Your task to perform on an android device: When is my next meeting? Image 0: 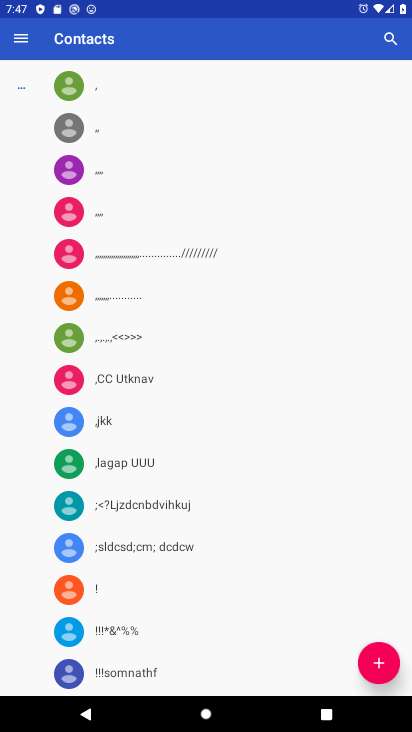
Step 0: press home button
Your task to perform on an android device: When is my next meeting? Image 1: 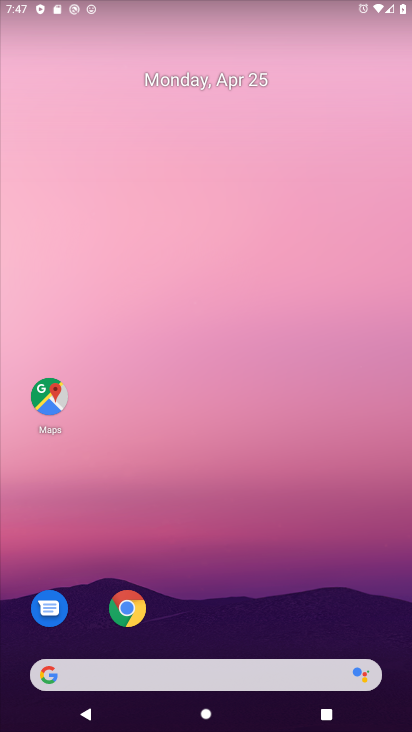
Step 1: drag from (255, 614) to (237, 114)
Your task to perform on an android device: When is my next meeting? Image 2: 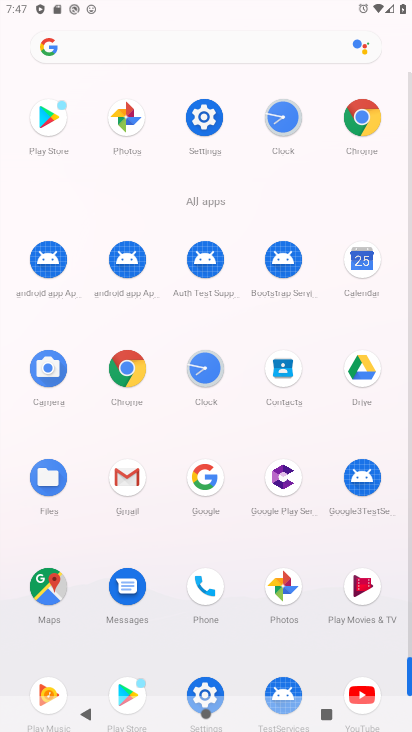
Step 2: click (359, 277)
Your task to perform on an android device: When is my next meeting? Image 3: 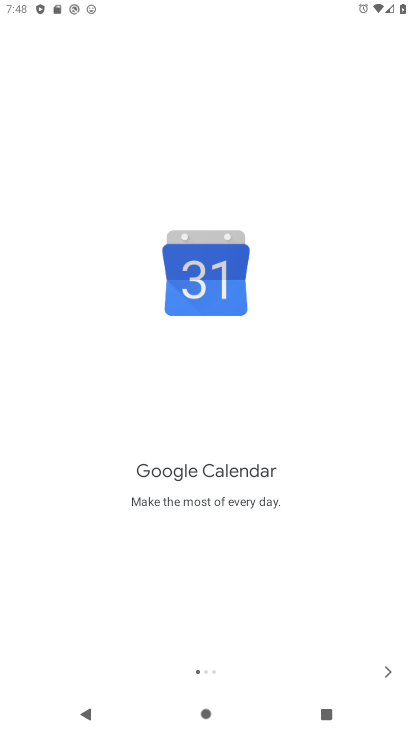
Step 3: click (385, 675)
Your task to perform on an android device: When is my next meeting? Image 4: 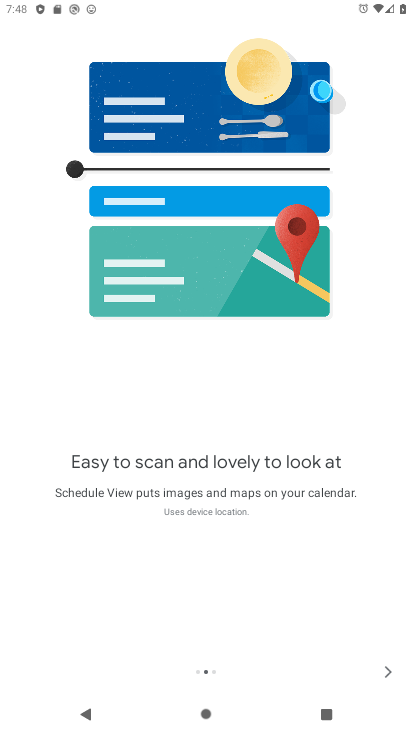
Step 4: click (385, 675)
Your task to perform on an android device: When is my next meeting? Image 5: 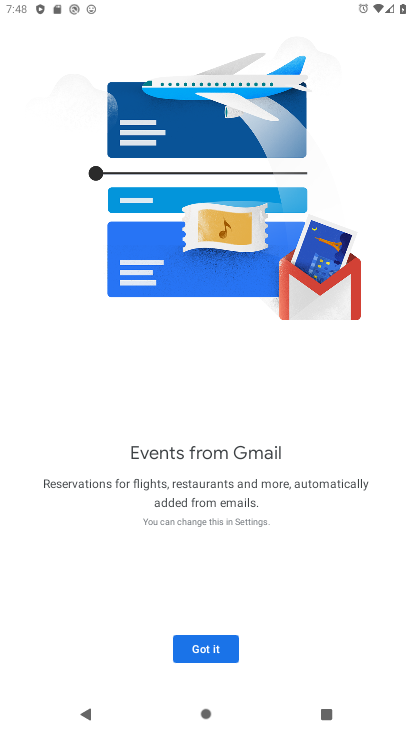
Step 5: click (218, 645)
Your task to perform on an android device: When is my next meeting? Image 6: 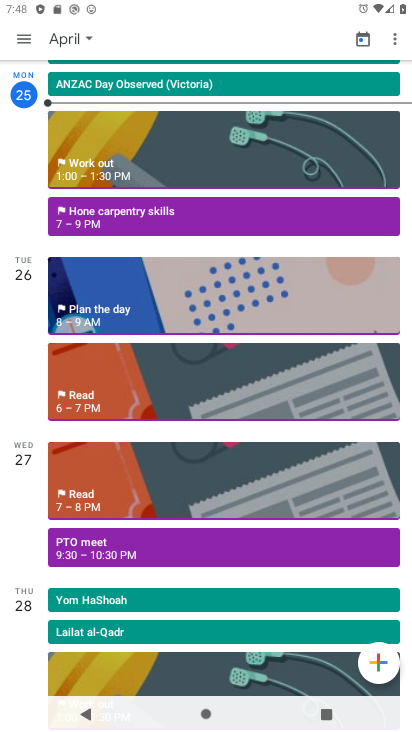
Step 6: task complete